Your task to perform on an android device: Open Google Maps and go to "Timeline" Image 0: 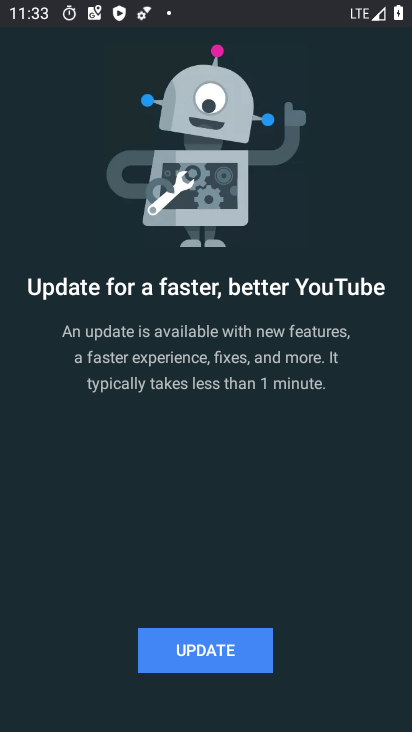
Step 0: press home button
Your task to perform on an android device: Open Google Maps and go to "Timeline" Image 1: 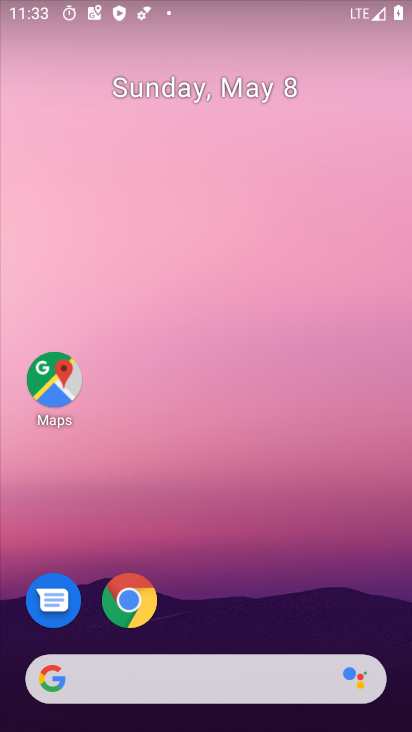
Step 1: click (37, 407)
Your task to perform on an android device: Open Google Maps and go to "Timeline" Image 2: 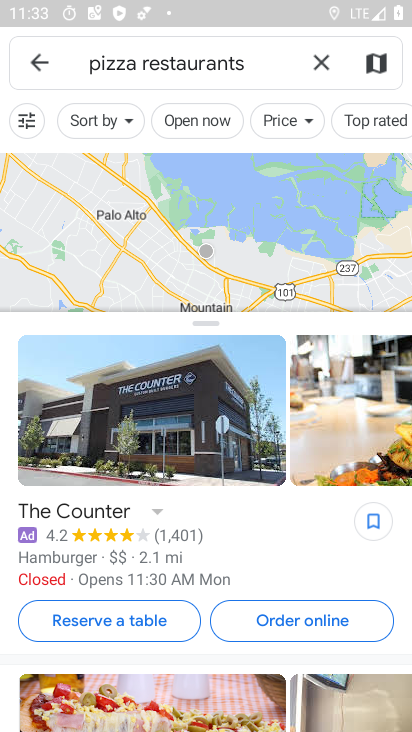
Step 2: click (50, 67)
Your task to perform on an android device: Open Google Maps and go to "Timeline" Image 3: 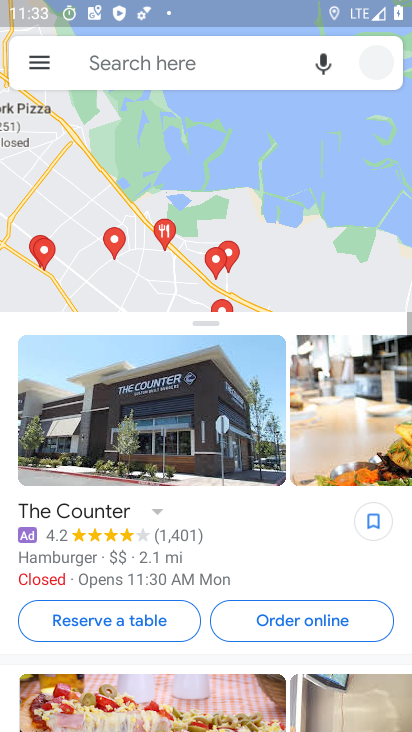
Step 3: click (42, 67)
Your task to perform on an android device: Open Google Maps and go to "Timeline" Image 4: 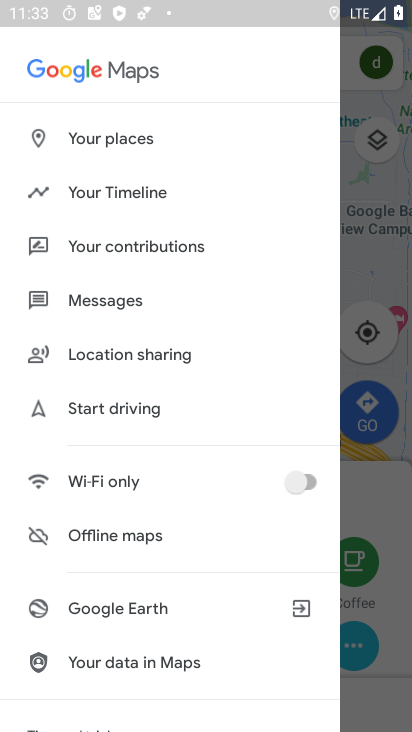
Step 4: click (170, 197)
Your task to perform on an android device: Open Google Maps and go to "Timeline" Image 5: 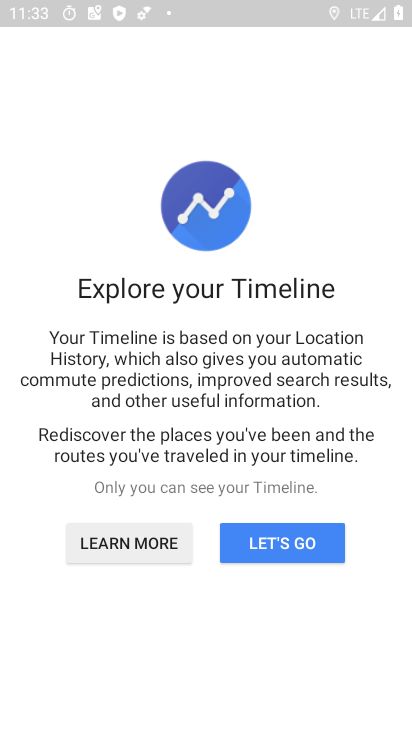
Step 5: click (287, 559)
Your task to perform on an android device: Open Google Maps and go to "Timeline" Image 6: 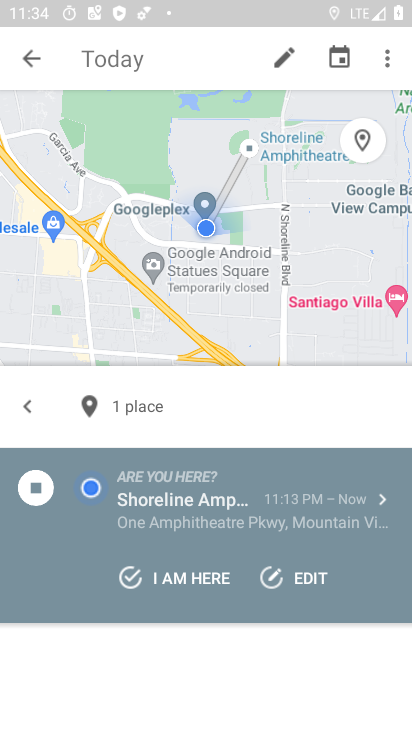
Step 6: task complete